Your task to perform on an android device: Do I have any events today? Image 0: 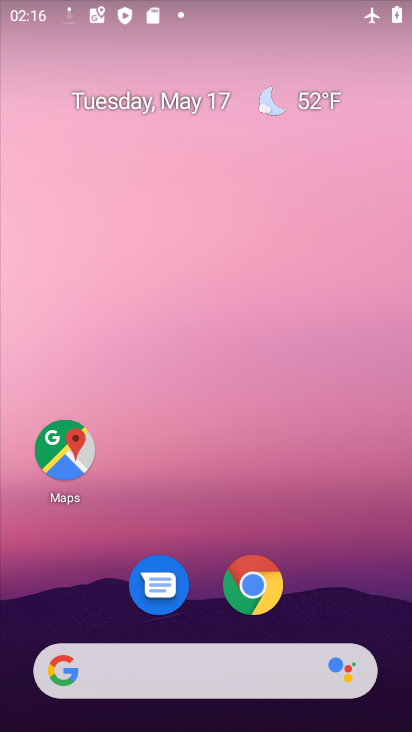
Step 0: drag from (249, 438) to (247, 31)
Your task to perform on an android device: Do I have any events today? Image 1: 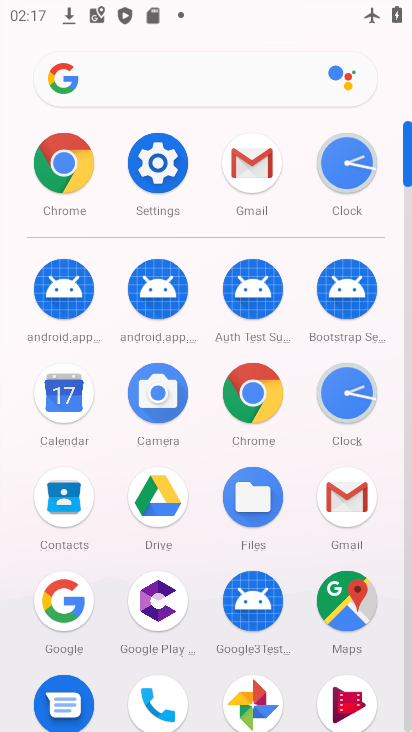
Step 1: click (62, 388)
Your task to perform on an android device: Do I have any events today? Image 2: 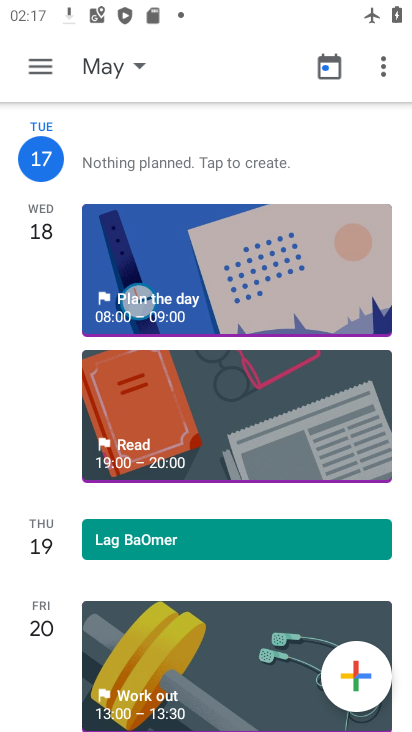
Step 2: task complete